Your task to perform on an android device: Go to Google Image 0: 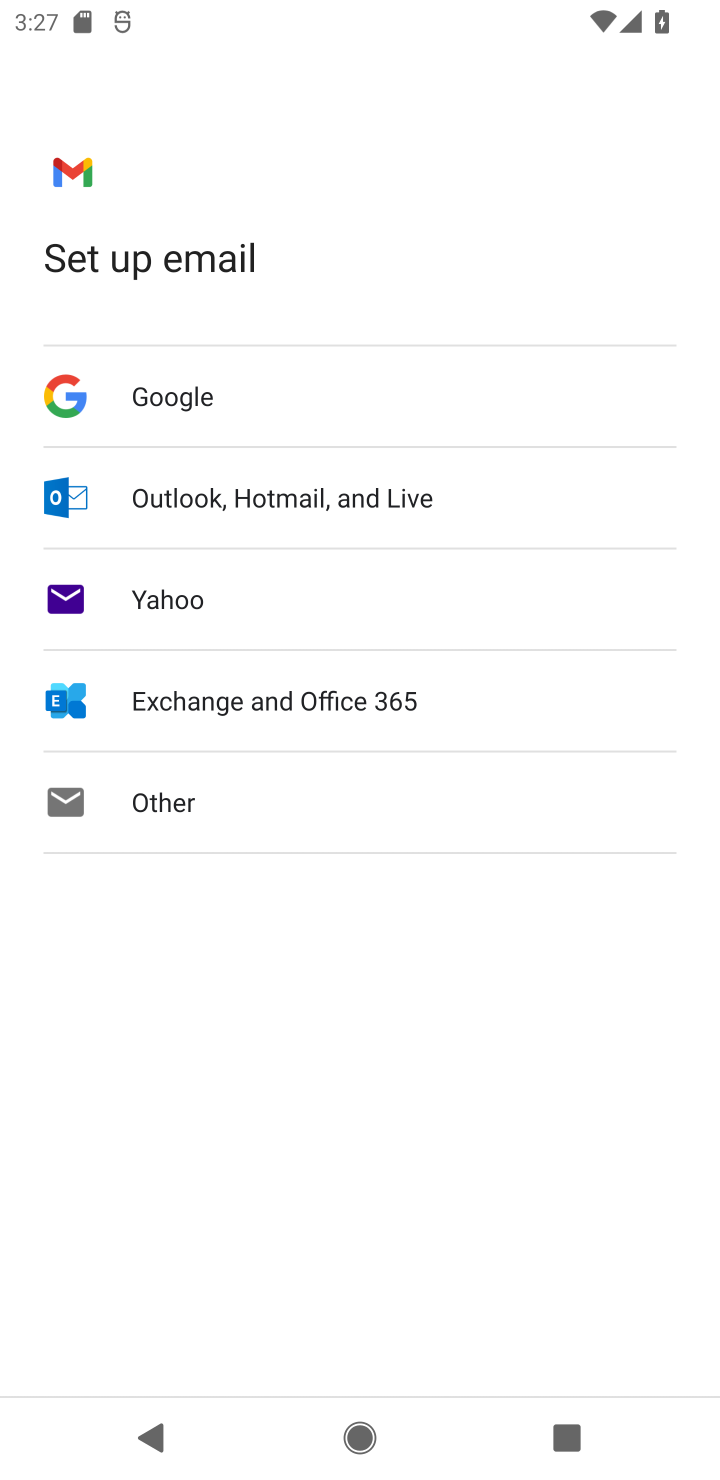
Step 0: press home button
Your task to perform on an android device: Go to Google Image 1: 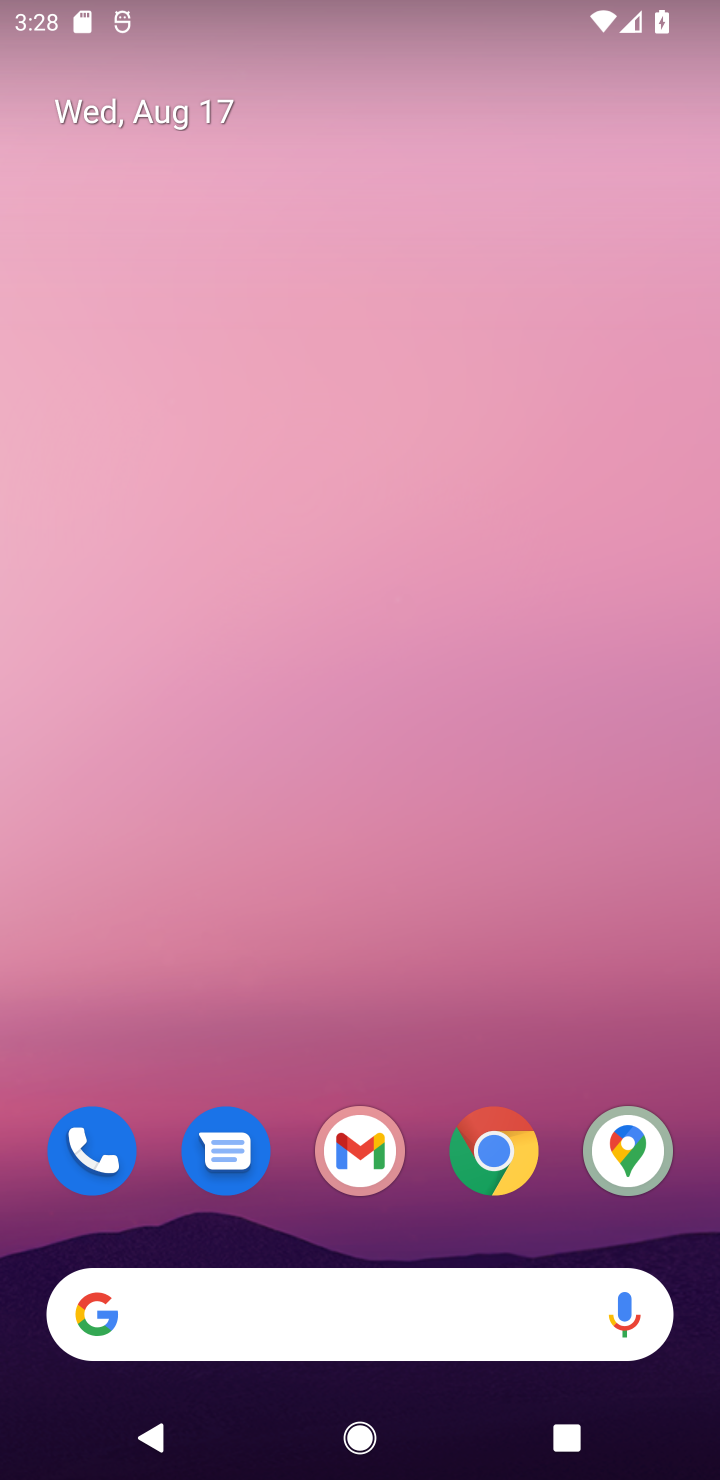
Step 1: click (473, 1196)
Your task to perform on an android device: Go to Google Image 2: 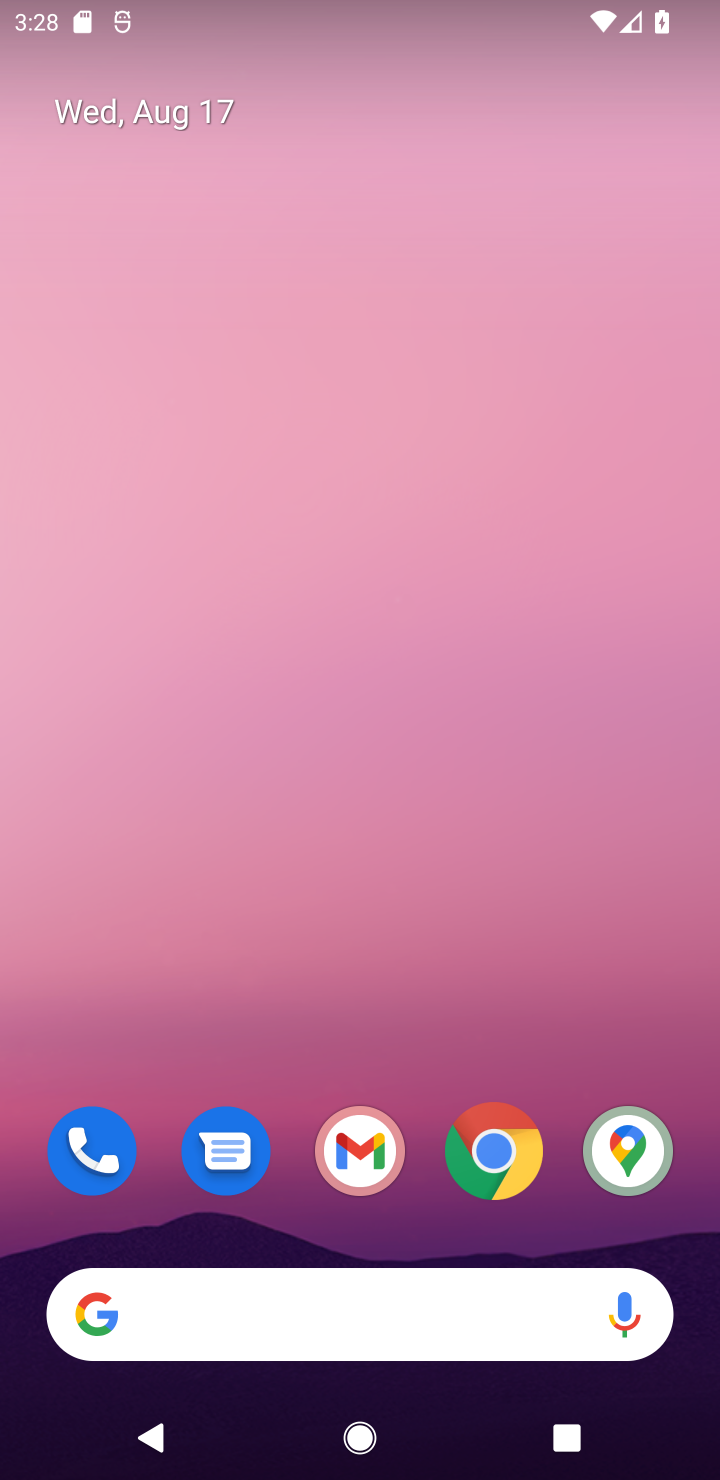
Step 2: task complete